Your task to perform on an android device: allow notifications from all sites in the chrome app Image 0: 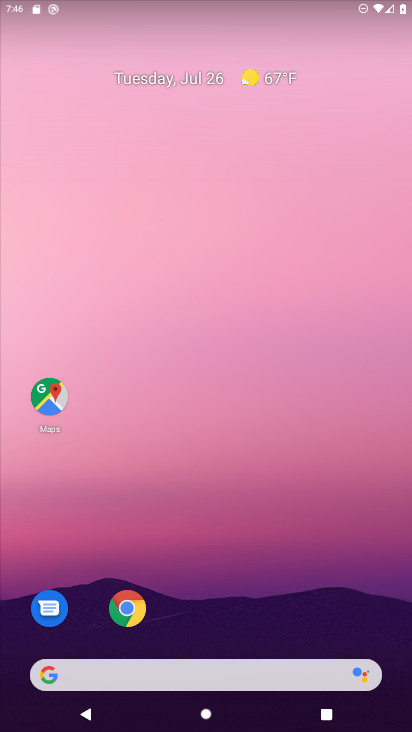
Step 0: drag from (205, 642) to (258, 11)
Your task to perform on an android device: allow notifications from all sites in the chrome app Image 1: 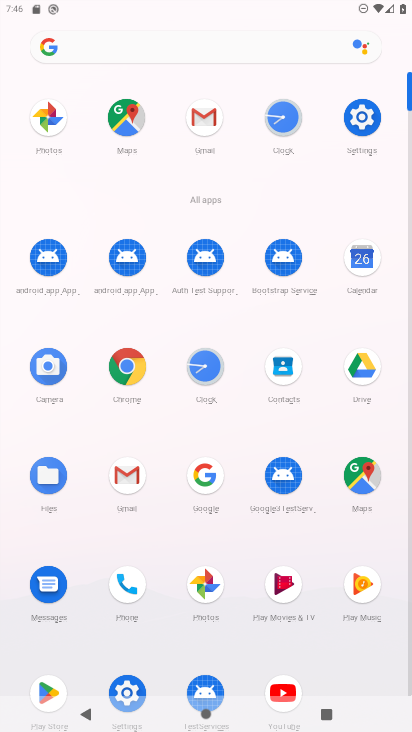
Step 1: click (133, 385)
Your task to perform on an android device: allow notifications from all sites in the chrome app Image 2: 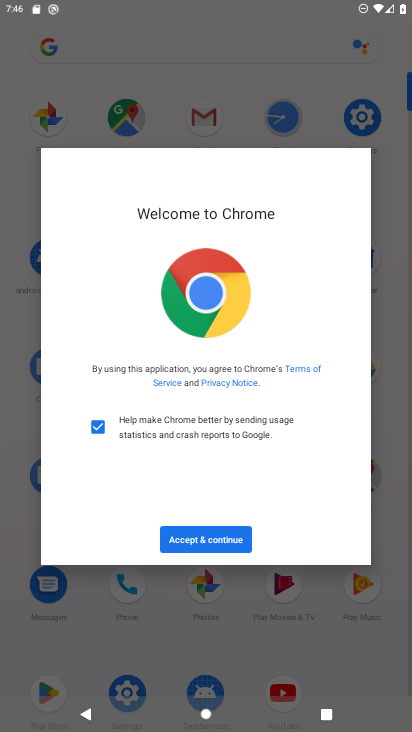
Step 2: click (192, 545)
Your task to perform on an android device: allow notifications from all sites in the chrome app Image 3: 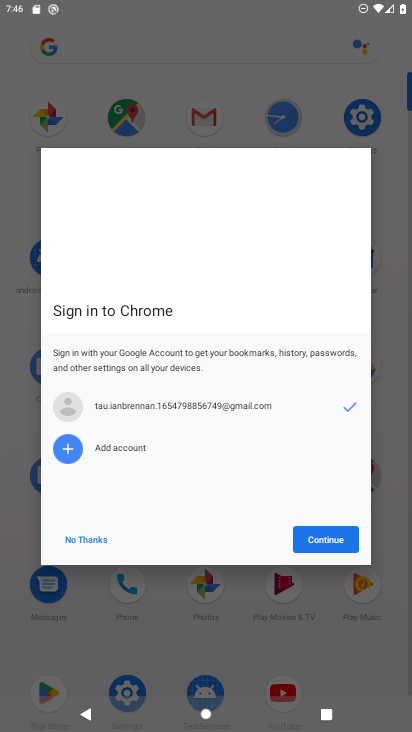
Step 3: click (325, 538)
Your task to perform on an android device: allow notifications from all sites in the chrome app Image 4: 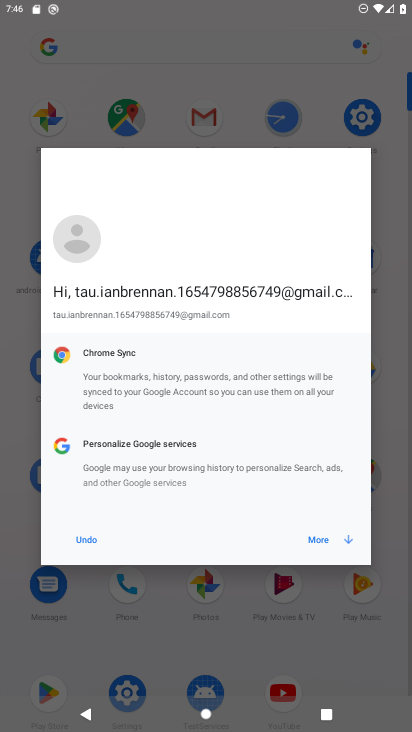
Step 4: click (325, 538)
Your task to perform on an android device: allow notifications from all sites in the chrome app Image 5: 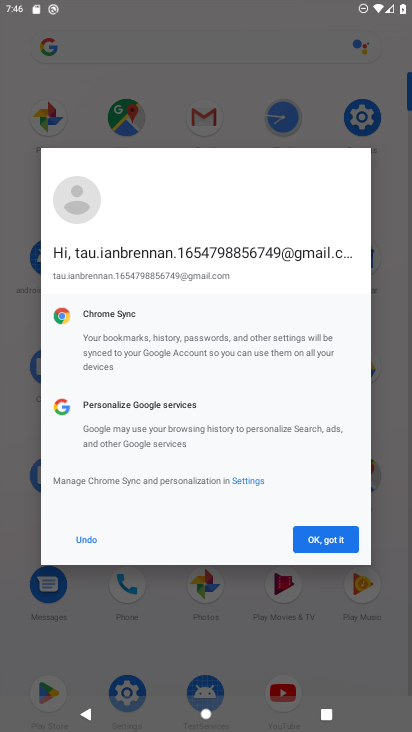
Step 5: click (327, 540)
Your task to perform on an android device: allow notifications from all sites in the chrome app Image 6: 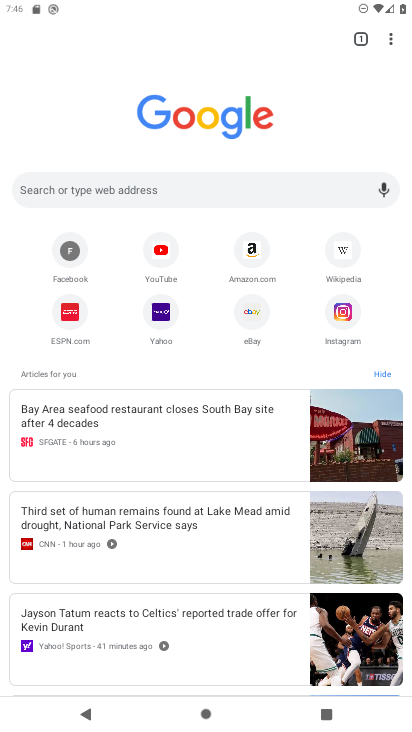
Step 6: click (390, 39)
Your task to perform on an android device: allow notifications from all sites in the chrome app Image 7: 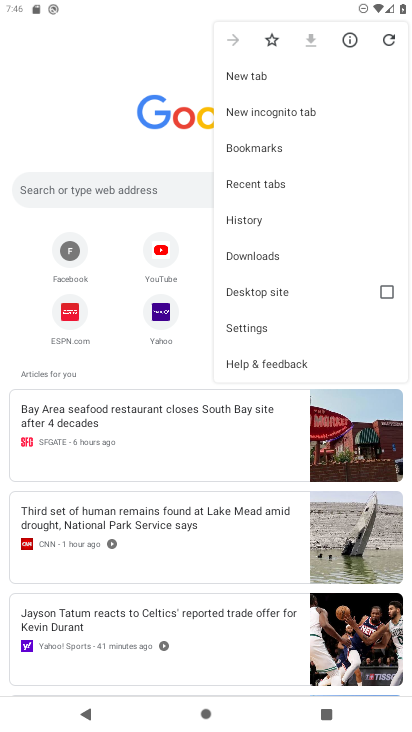
Step 7: click (241, 329)
Your task to perform on an android device: allow notifications from all sites in the chrome app Image 8: 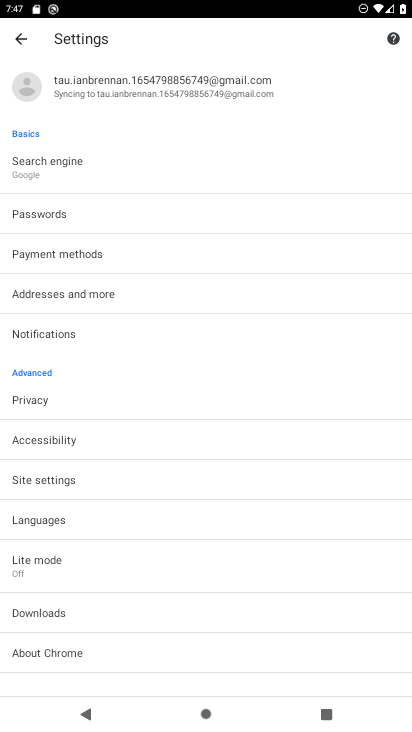
Step 8: click (55, 338)
Your task to perform on an android device: allow notifications from all sites in the chrome app Image 9: 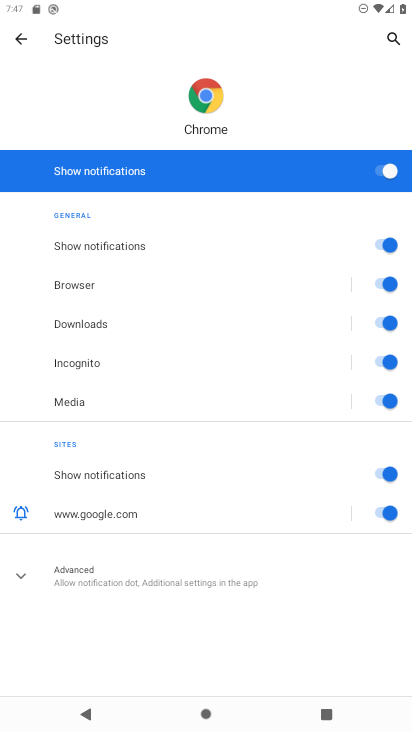
Step 9: task complete